Your task to perform on an android device: Open Google Chrome Image 0: 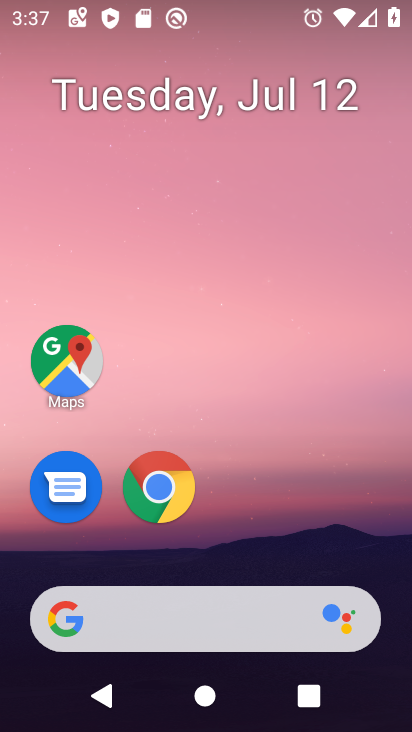
Step 0: click (166, 475)
Your task to perform on an android device: Open Google Chrome Image 1: 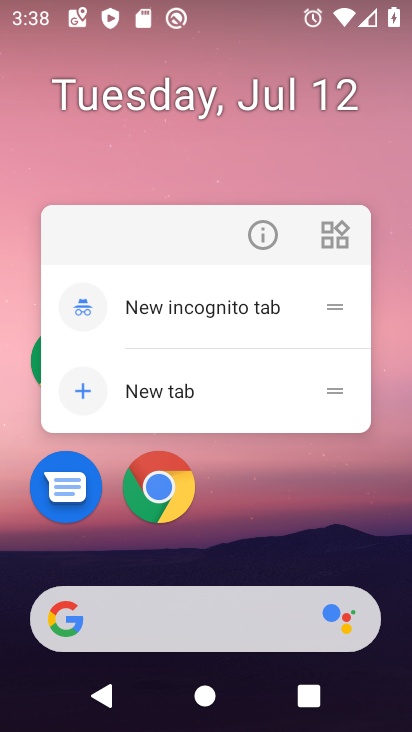
Step 1: click (150, 529)
Your task to perform on an android device: Open Google Chrome Image 2: 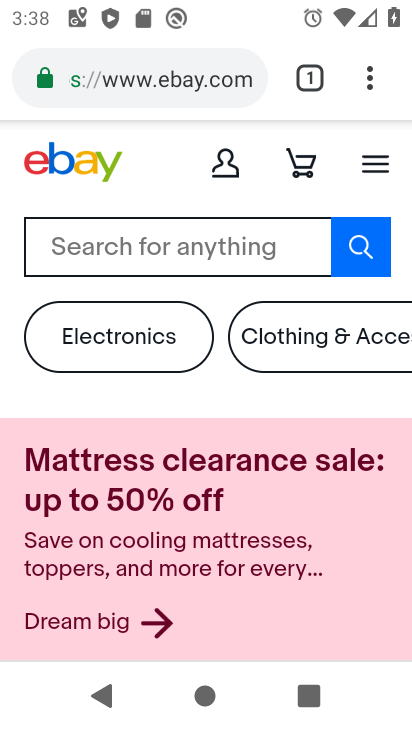
Step 2: task complete